Your task to perform on an android device: Is it going to rain this weekend? Image 0: 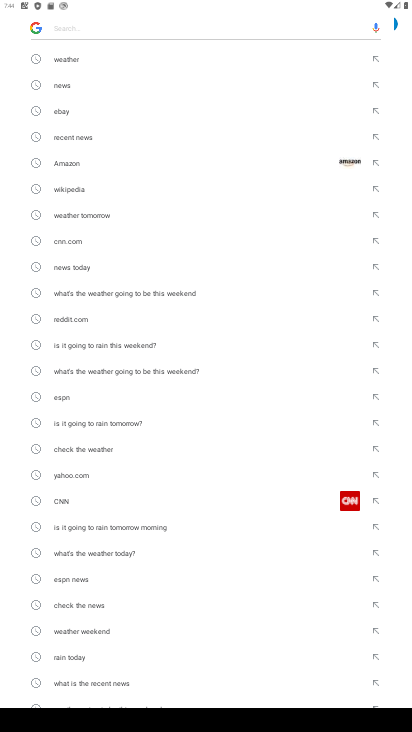
Step 0: press home button
Your task to perform on an android device: Is it going to rain this weekend? Image 1: 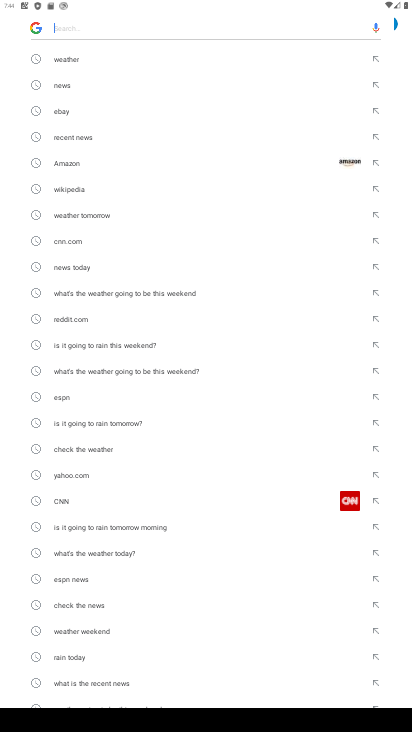
Step 1: press home button
Your task to perform on an android device: Is it going to rain this weekend? Image 2: 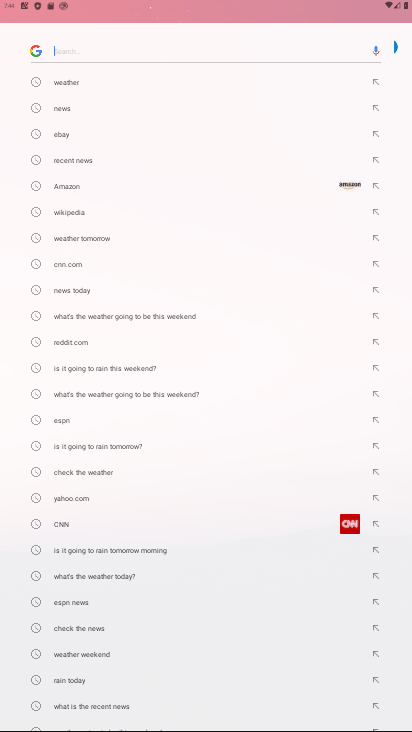
Step 2: drag from (197, 296) to (231, 120)
Your task to perform on an android device: Is it going to rain this weekend? Image 3: 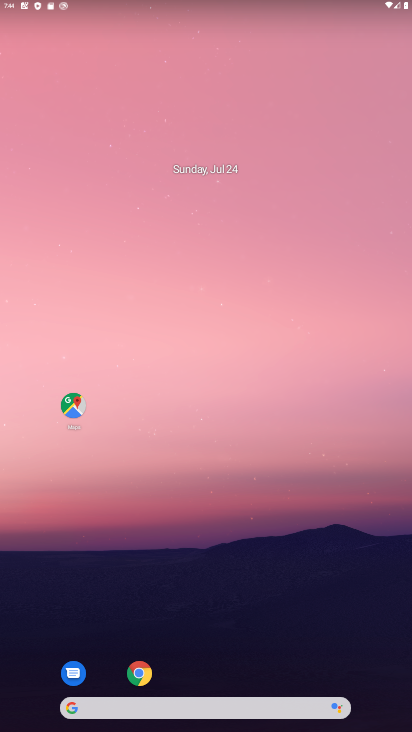
Step 3: drag from (178, 677) to (303, 181)
Your task to perform on an android device: Is it going to rain this weekend? Image 4: 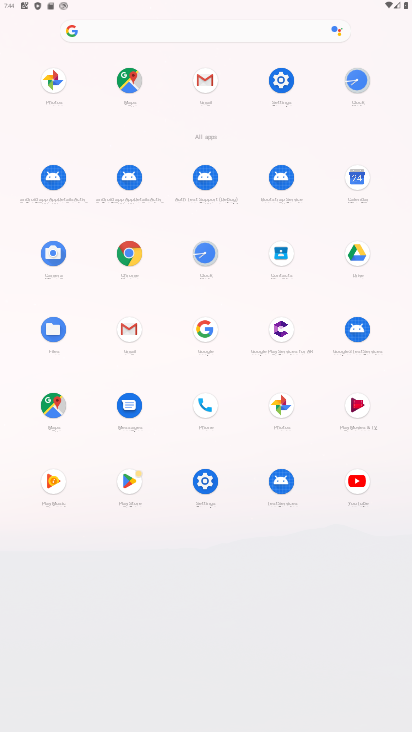
Step 4: click (169, 30)
Your task to perform on an android device: Is it going to rain this weekend? Image 5: 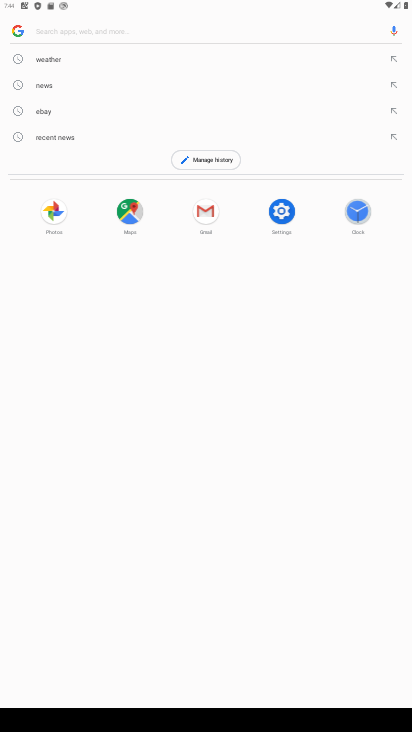
Step 5: type "Is it going to rain this weekend?"
Your task to perform on an android device: Is it going to rain this weekend? Image 6: 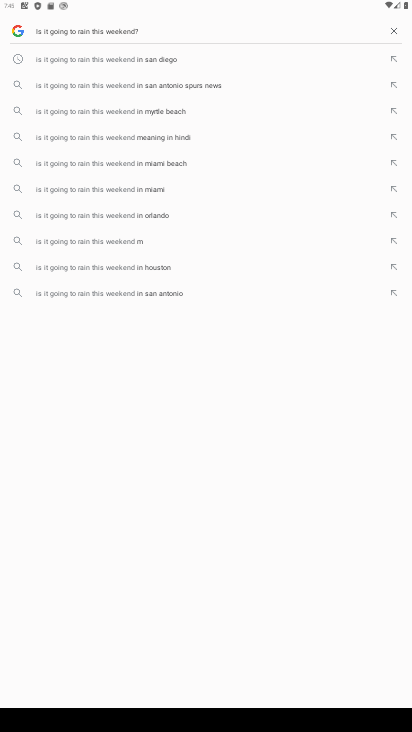
Step 6: click (63, 68)
Your task to perform on an android device: Is it going to rain this weekend? Image 7: 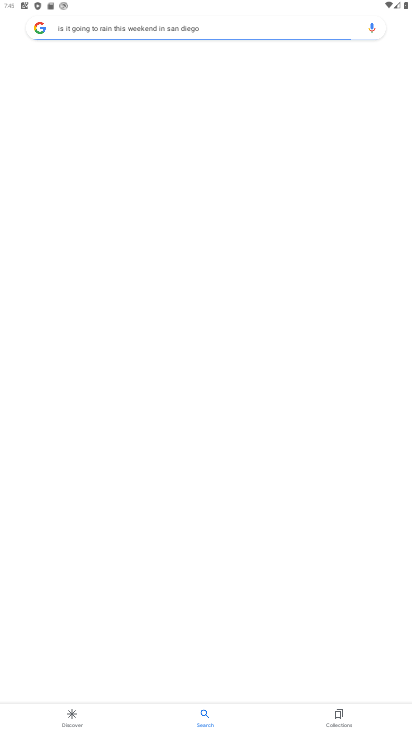
Step 7: task complete